Your task to perform on an android device: Open wifi settings Image 0: 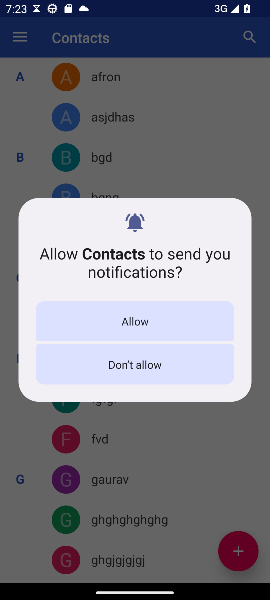
Step 0: press home button
Your task to perform on an android device: Open wifi settings Image 1: 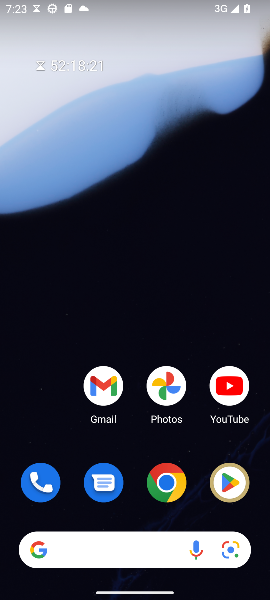
Step 1: drag from (146, 533) to (211, 68)
Your task to perform on an android device: Open wifi settings Image 2: 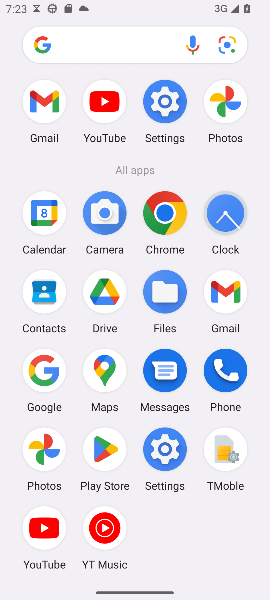
Step 2: click (167, 109)
Your task to perform on an android device: Open wifi settings Image 3: 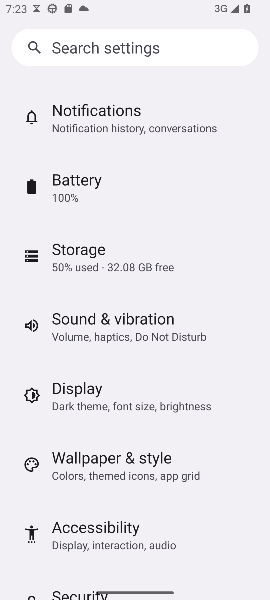
Step 3: drag from (155, 116) to (180, 480)
Your task to perform on an android device: Open wifi settings Image 4: 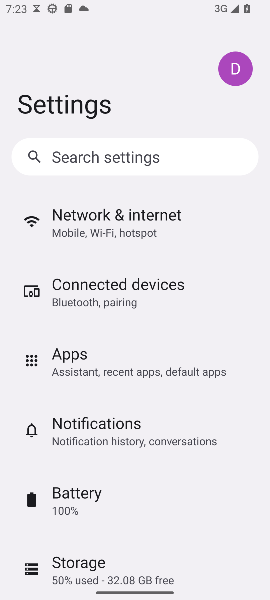
Step 4: click (118, 231)
Your task to perform on an android device: Open wifi settings Image 5: 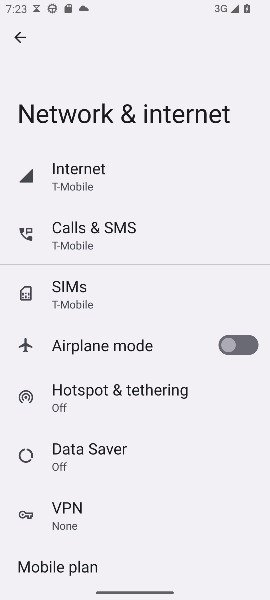
Step 5: click (92, 160)
Your task to perform on an android device: Open wifi settings Image 6: 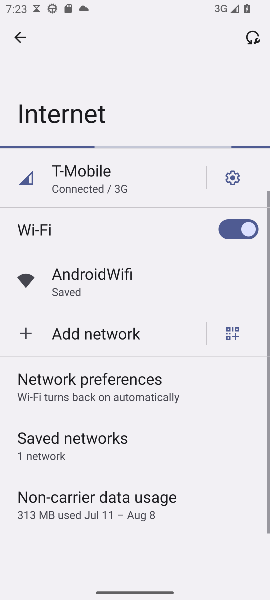
Step 6: click (75, 238)
Your task to perform on an android device: Open wifi settings Image 7: 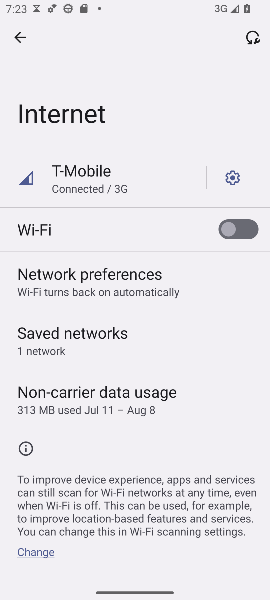
Step 7: task complete